Your task to perform on an android device: open chrome privacy settings Image 0: 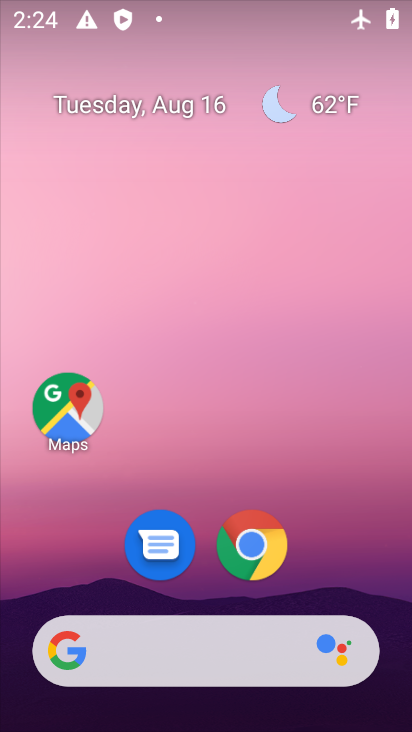
Step 0: click (247, 541)
Your task to perform on an android device: open chrome privacy settings Image 1: 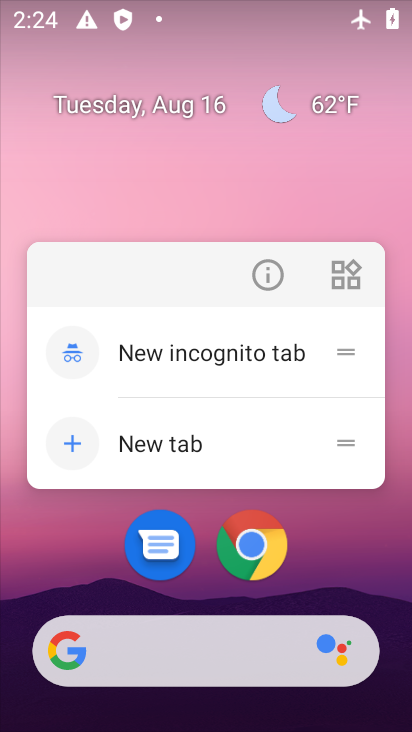
Step 1: click (252, 544)
Your task to perform on an android device: open chrome privacy settings Image 2: 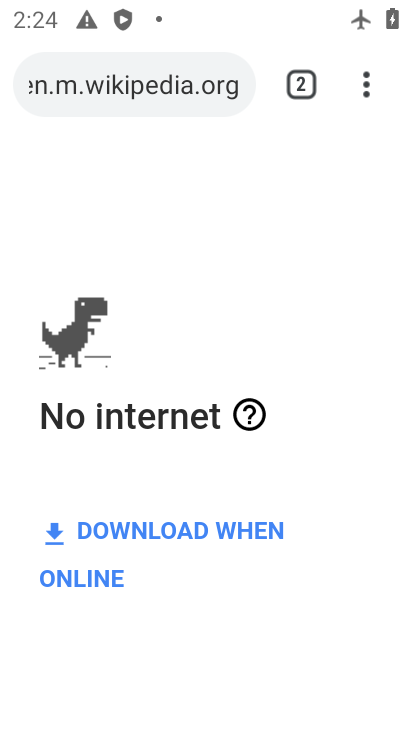
Step 2: drag from (358, 82) to (411, 150)
Your task to perform on an android device: open chrome privacy settings Image 3: 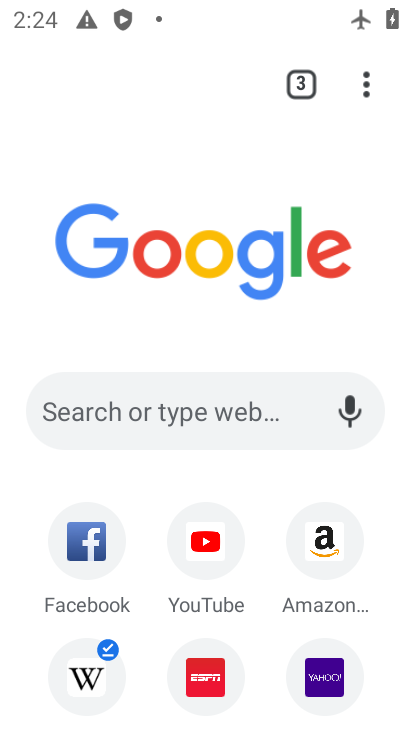
Step 3: click (368, 80)
Your task to perform on an android device: open chrome privacy settings Image 4: 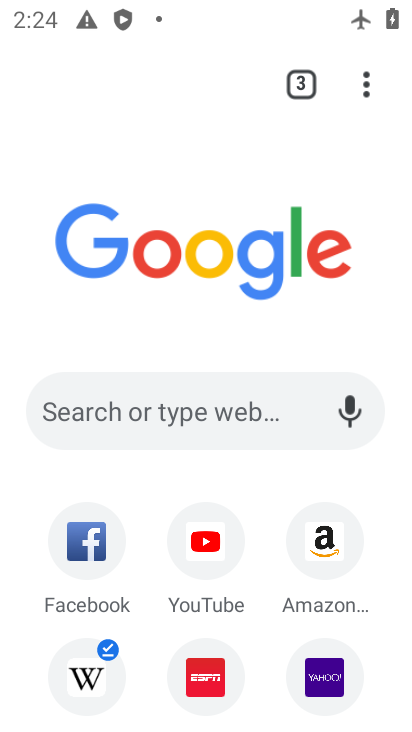
Step 4: click (355, 87)
Your task to perform on an android device: open chrome privacy settings Image 5: 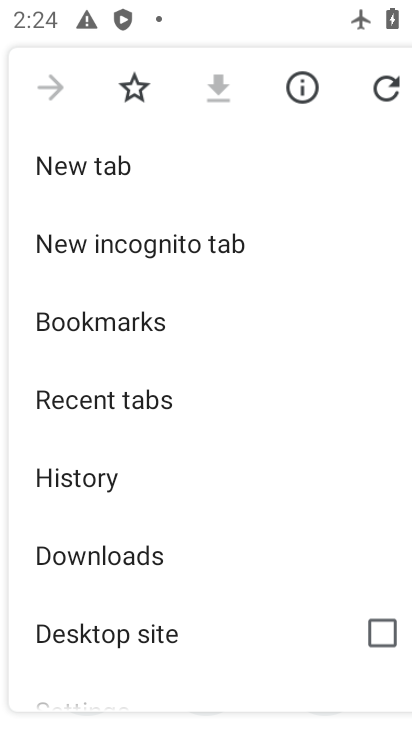
Step 5: drag from (117, 611) to (148, 193)
Your task to perform on an android device: open chrome privacy settings Image 6: 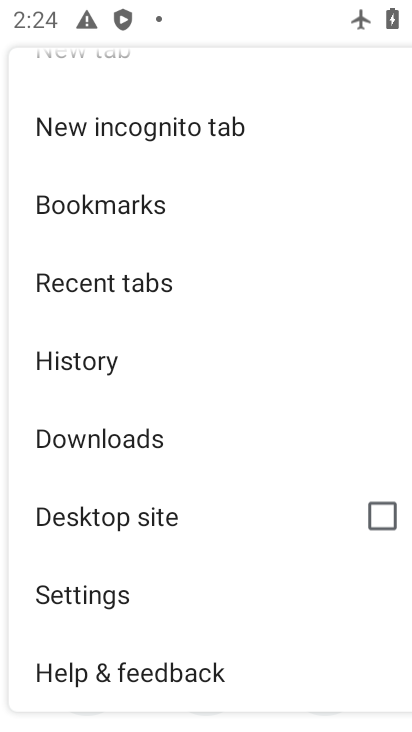
Step 6: click (86, 606)
Your task to perform on an android device: open chrome privacy settings Image 7: 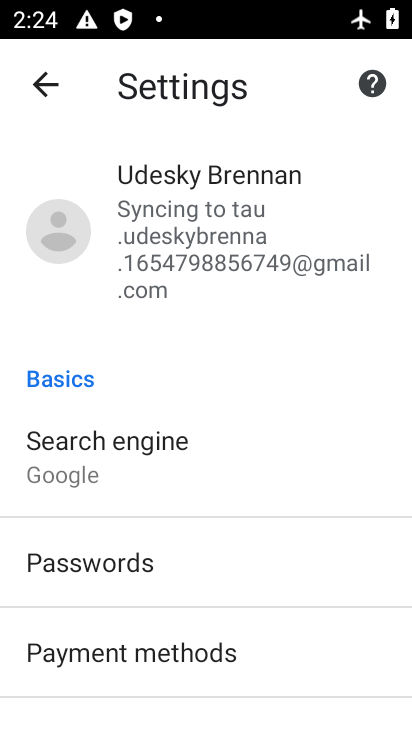
Step 7: drag from (182, 642) to (182, 417)
Your task to perform on an android device: open chrome privacy settings Image 8: 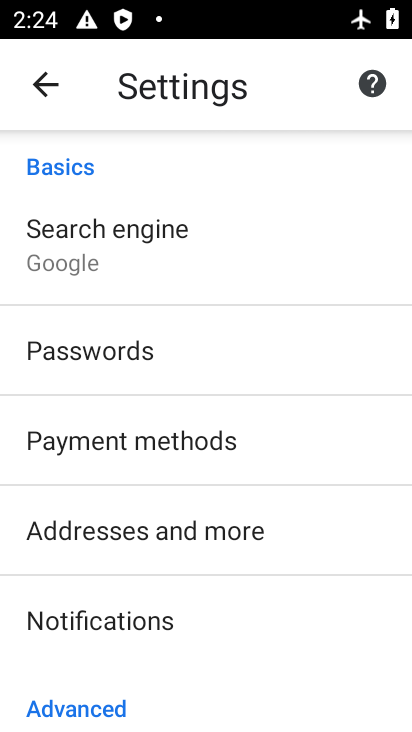
Step 8: drag from (120, 659) to (133, 429)
Your task to perform on an android device: open chrome privacy settings Image 9: 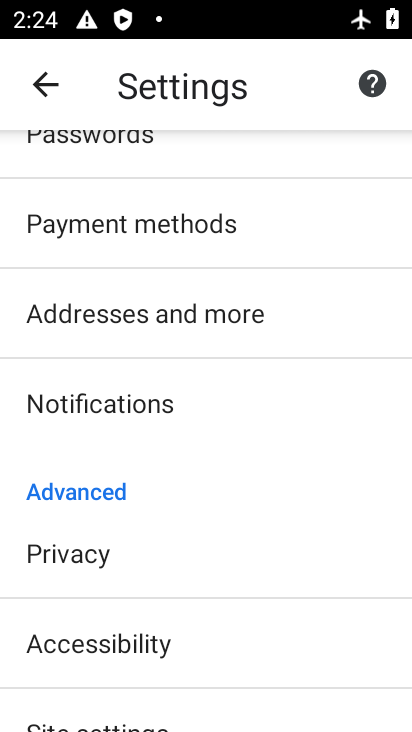
Step 9: drag from (78, 644) to (88, 438)
Your task to perform on an android device: open chrome privacy settings Image 10: 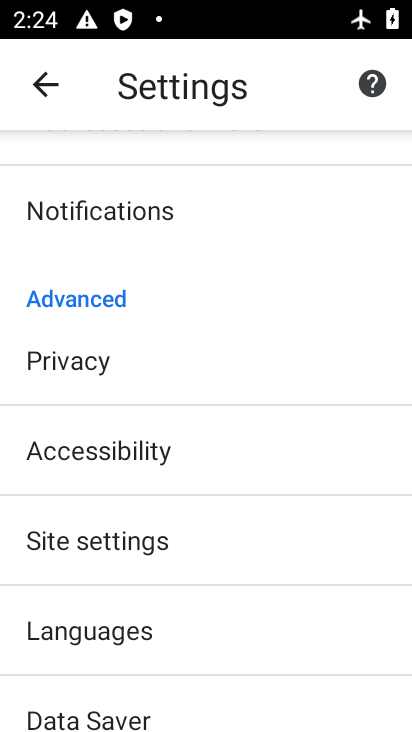
Step 10: drag from (72, 691) to (90, 400)
Your task to perform on an android device: open chrome privacy settings Image 11: 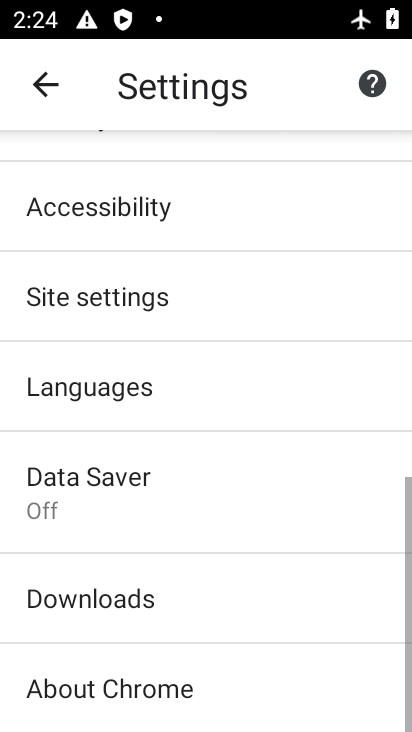
Step 11: drag from (85, 183) to (111, 528)
Your task to perform on an android device: open chrome privacy settings Image 12: 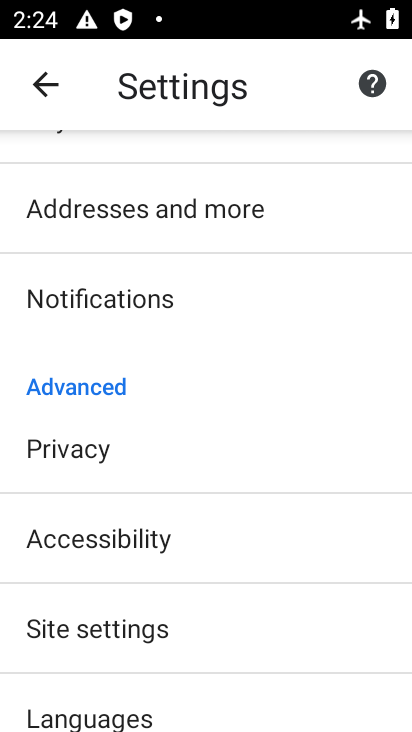
Step 12: click (80, 451)
Your task to perform on an android device: open chrome privacy settings Image 13: 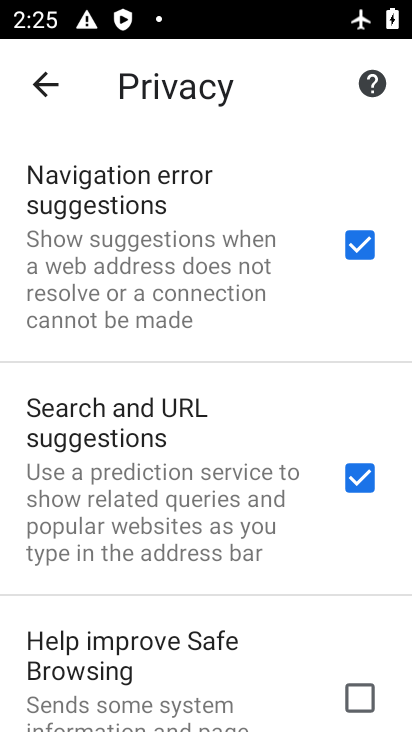
Step 13: task complete